Your task to perform on an android device: turn on sleep mode Image 0: 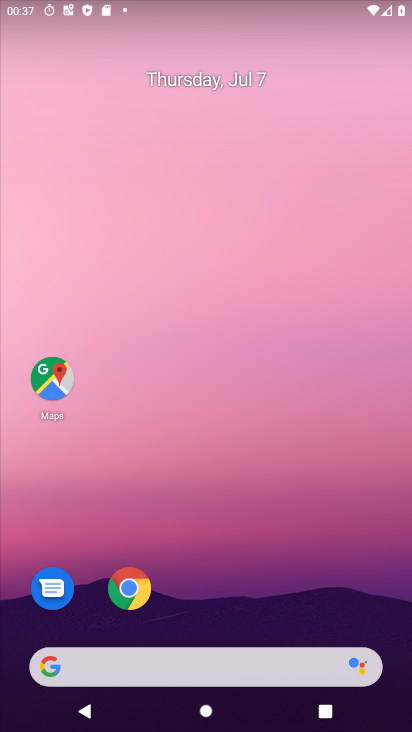
Step 0: drag from (246, 713) to (237, 33)
Your task to perform on an android device: turn on sleep mode Image 1: 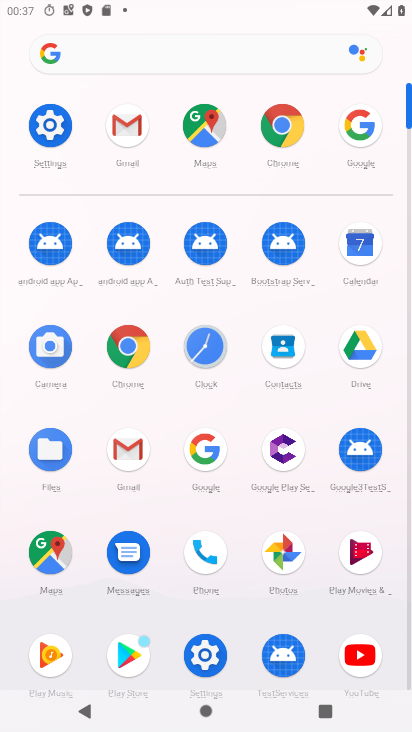
Step 1: click (41, 125)
Your task to perform on an android device: turn on sleep mode Image 2: 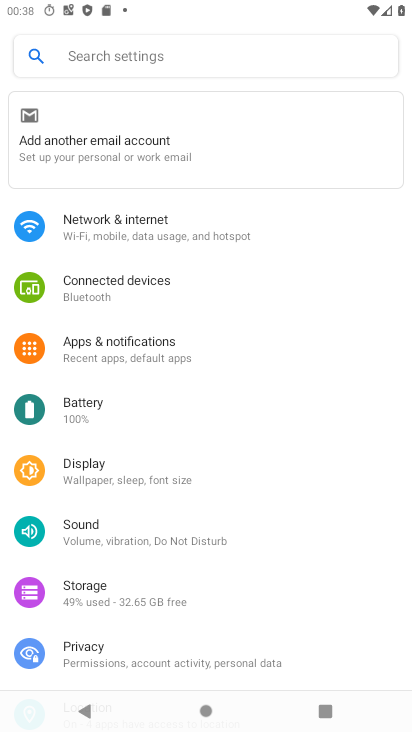
Step 2: drag from (130, 641) to (130, 314)
Your task to perform on an android device: turn on sleep mode Image 3: 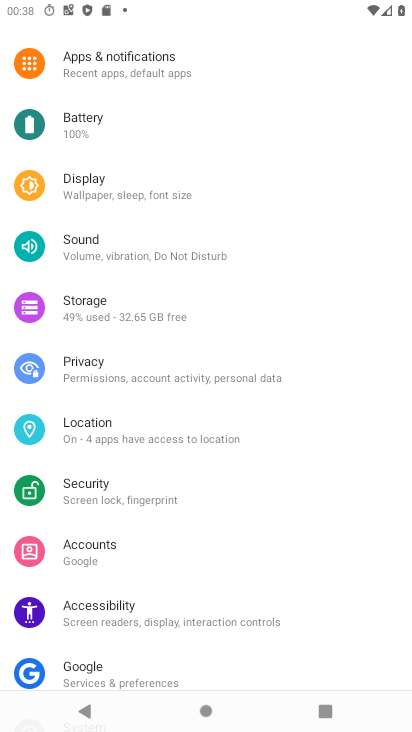
Step 3: drag from (151, 586) to (147, 534)
Your task to perform on an android device: turn on sleep mode Image 4: 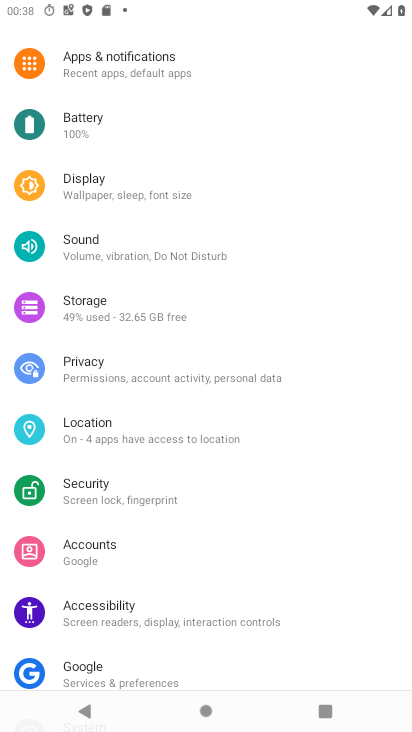
Step 4: drag from (147, 413) to (147, 322)
Your task to perform on an android device: turn on sleep mode Image 5: 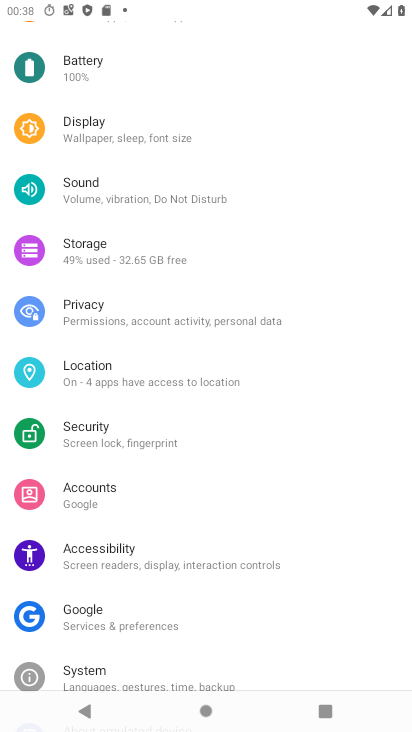
Step 5: click (173, 135)
Your task to perform on an android device: turn on sleep mode Image 6: 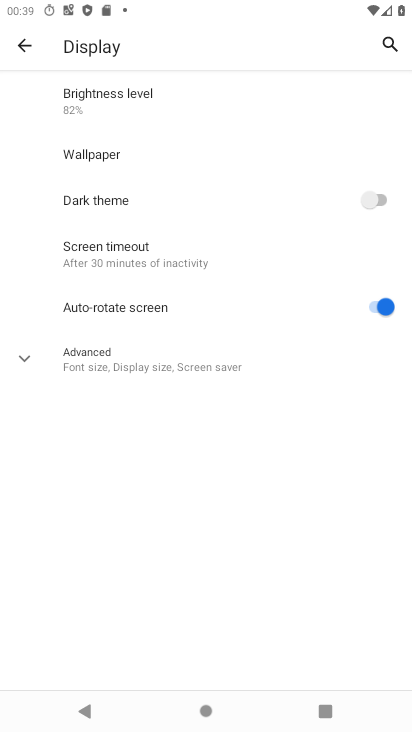
Step 6: task complete